Your task to perform on an android device: turn pop-ups off in chrome Image 0: 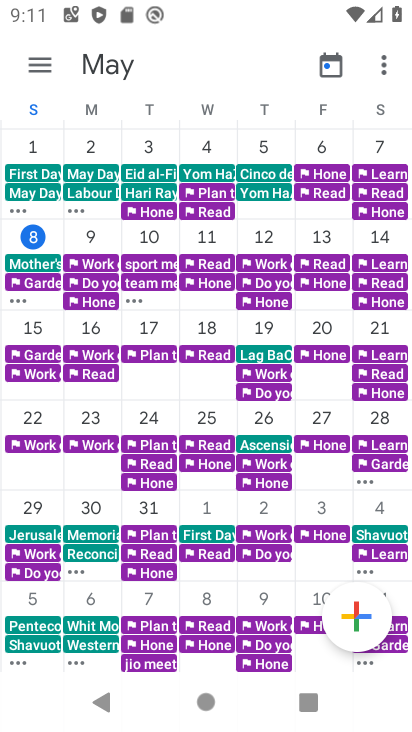
Step 0: press home button
Your task to perform on an android device: turn pop-ups off in chrome Image 1: 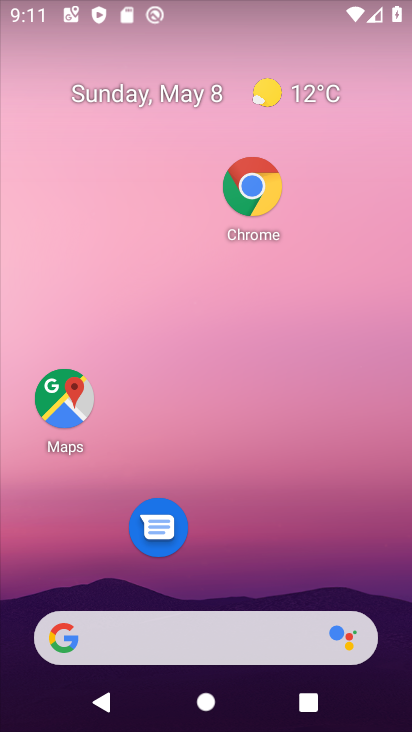
Step 1: drag from (235, 496) to (267, 234)
Your task to perform on an android device: turn pop-ups off in chrome Image 2: 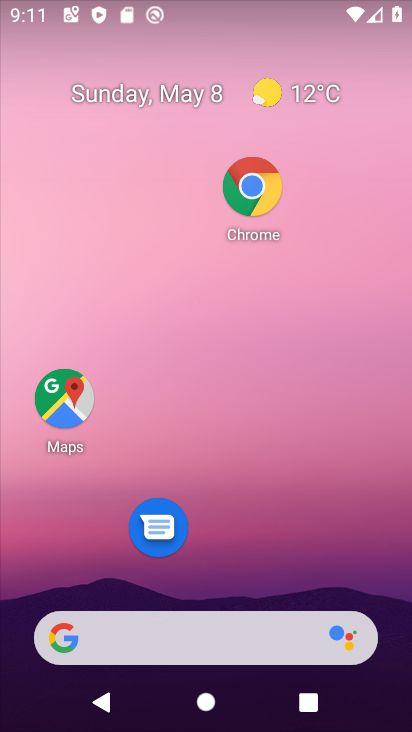
Step 2: drag from (265, 618) to (333, 209)
Your task to perform on an android device: turn pop-ups off in chrome Image 3: 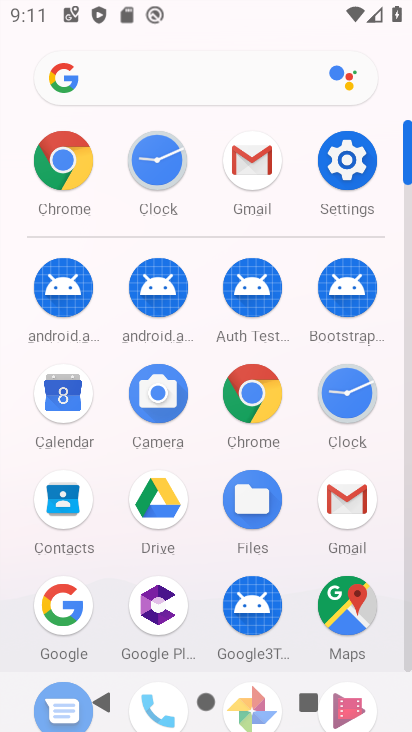
Step 3: click (244, 382)
Your task to perform on an android device: turn pop-ups off in chrome Image 4: 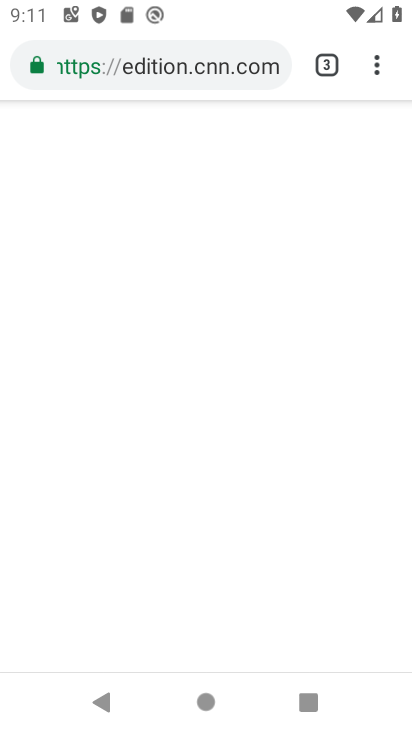
Step 4: click (365, 69)
Your task to perform on an android device: turn pop-ups off in chrome Image 5: 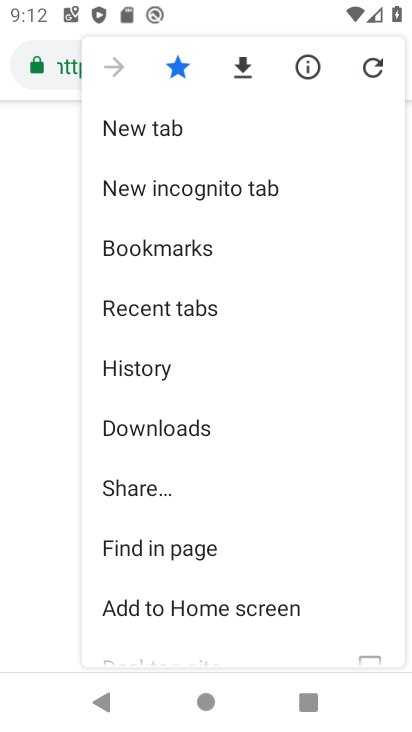
Step 5: drag from (230, 321) to (252, 205)
Your task to perform on an android device: turn pop-ups off in chrome Image 6: 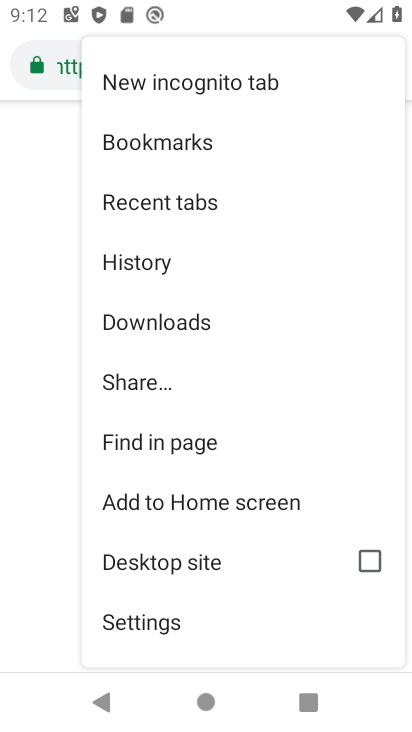
Step 6: click (184, 621)
Your task to perform on an android device: turn pop-ups off in chrome Image 7: 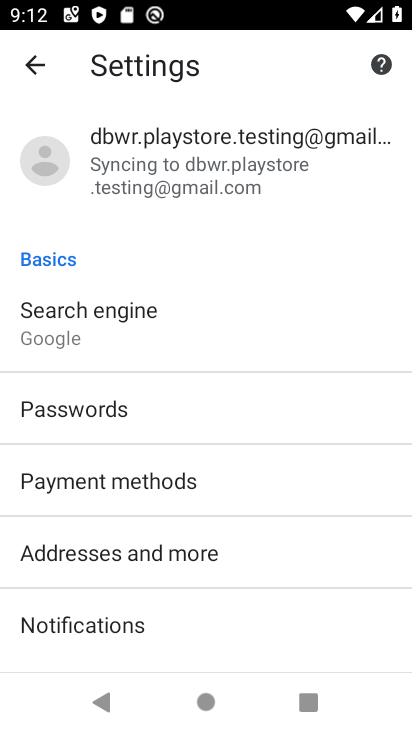
Step 7: drag from (168, 623) to (279, 149)
Your task to perform on an android device: turn pop-ups off in chrome Image 8: 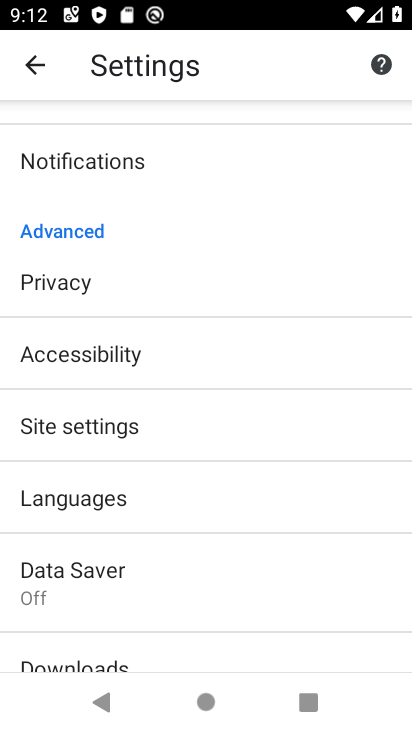
Step 8: drag from (174, 618) to (229, 213)
Your task to perform on an android device: turn pop-ups off in chrome Image 9: 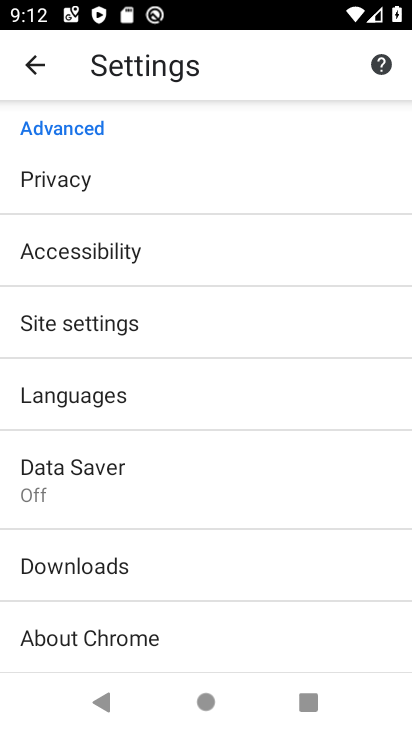
Step 9: click (161, 313)
Your task to perform on an android device: turn pop-ups off in chrome Image 10: 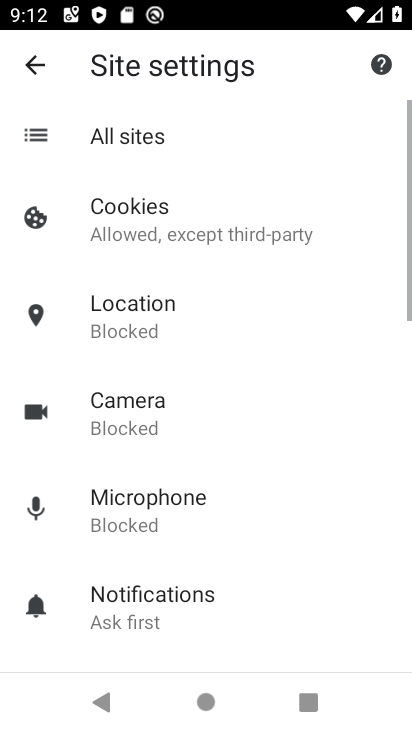
Step 10: drag from (202, 548) to (307, 104)
Your task to perform on an android device: turn pop-ups off in chrome Image 11: 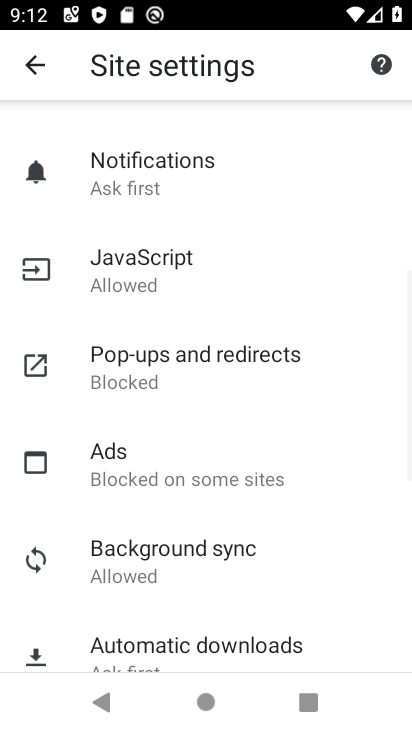
Step 11: click (199, 354)
Your task to perform on an android device: turn pop-ups off in chrome Image 12: 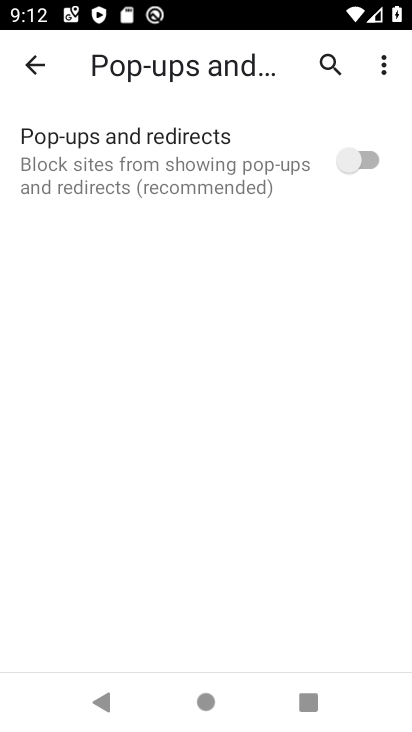
Step 12: task complete